Your task to perform on an android device: toggle translation in the chrome app Image 0: 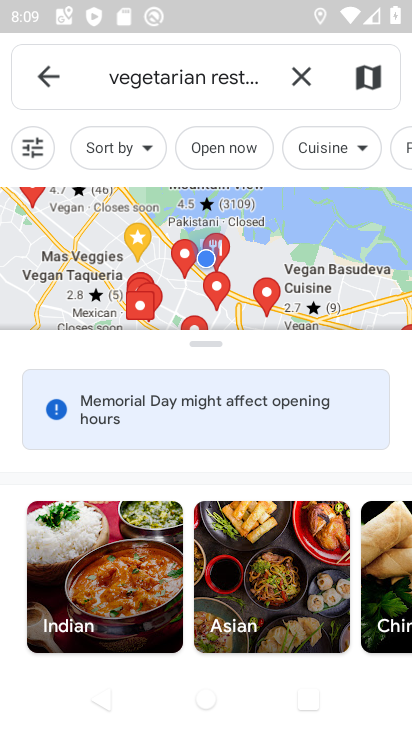
Step 0: press home button
Your task to perform on an android device: toggle translation in the chrome app Image 1: 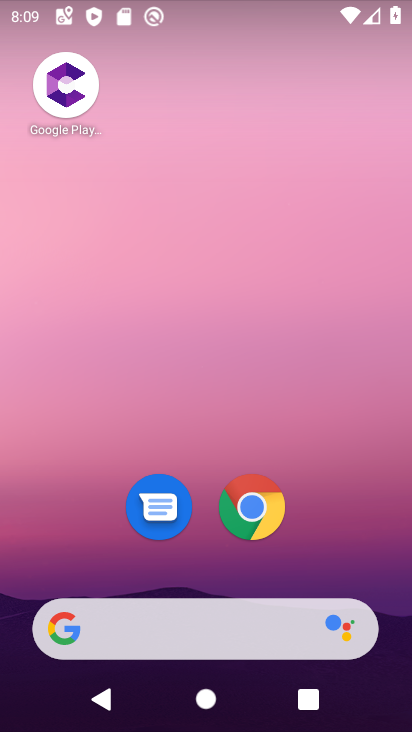
Step 1: click (256, 504)
Your task to perform on an android device: toggle translation in the chrome app Image 2: 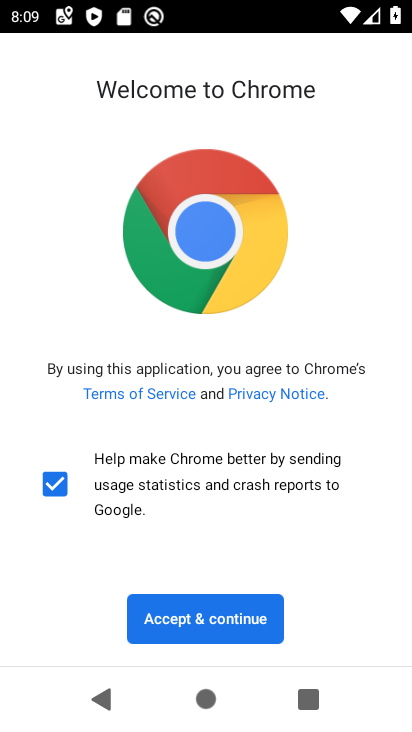
Step 2: click (217, 623)
Your task to perform on an android device: toggle translation in the chrome app Image 3: 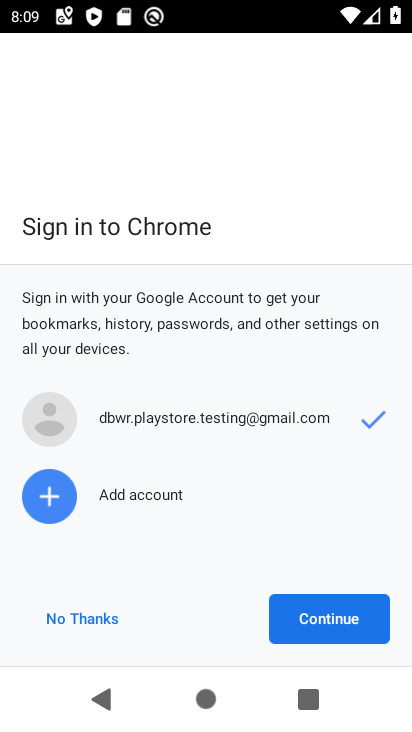
Step 3: click (364, 631)
Your task to perform on an android device: toggle translation in the chrome app Image 4: 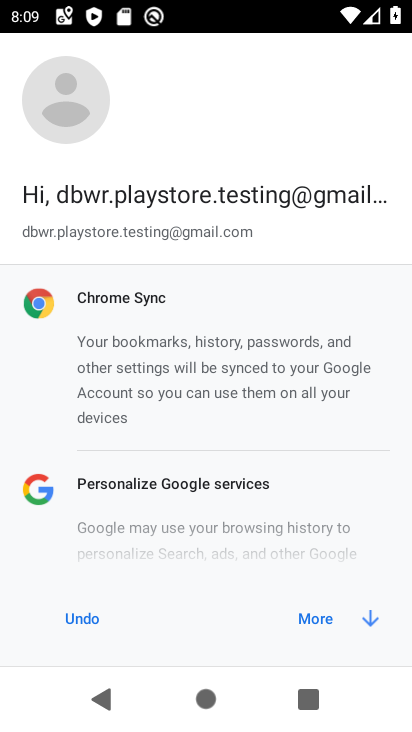
Step 4: click (327, 622)
Your task to perform on an android device: toggle translation in the chrome app Image 5: 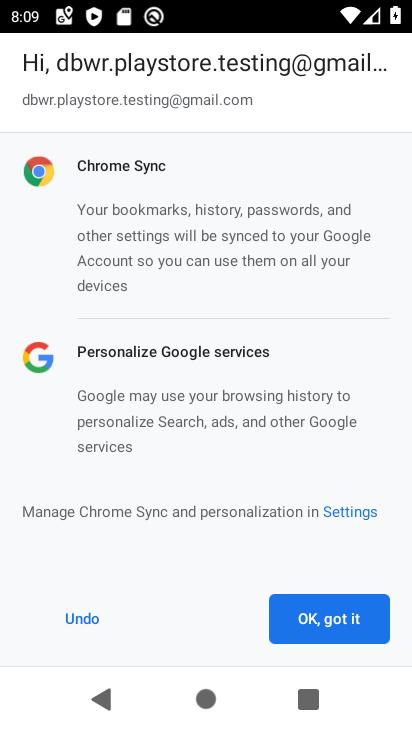
Step 5: click (333, 621)
Your task to perform on an android device: toggle translation in the chrome app Image 6: 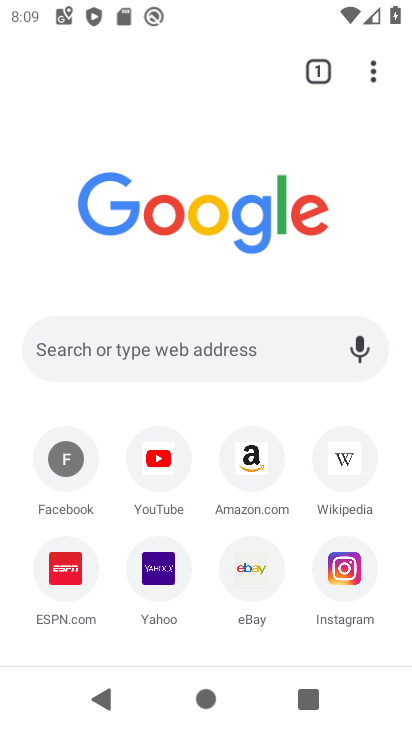
Step 6: click (377, 90)
Your task to perform on an android device: toggle translation in the chrome app Image 7: 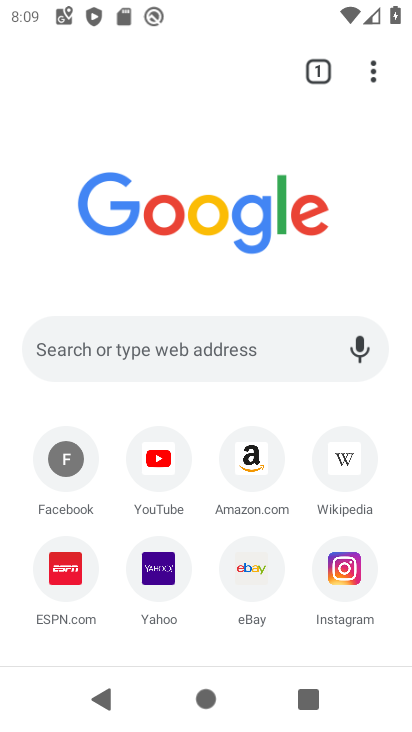
Step 7: click (368, 77)
Your task to perform on an android device: toggle translation in the chrome app Image 8: 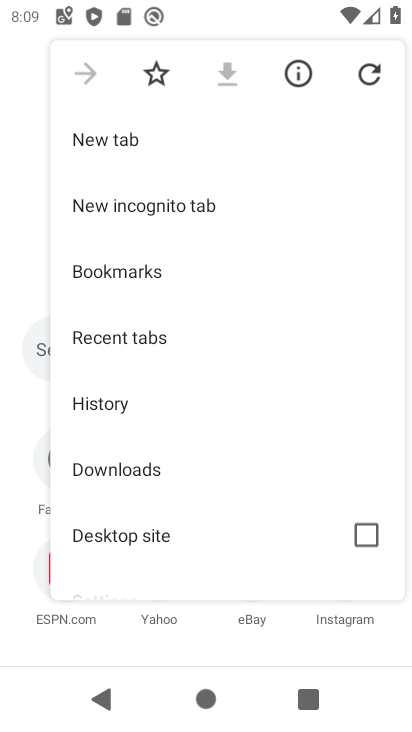
Step 8: drag from (168, 530) to (202, 92)
Your task to perform on an android device: toggle translation in the chrome app Image 9: 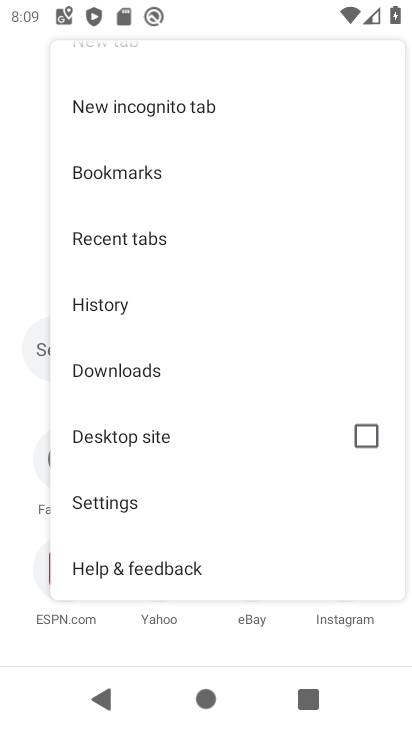
Step 9: click (108, 501)
Your task to perform on an android device: toggle translation in the chrome app Image 10: 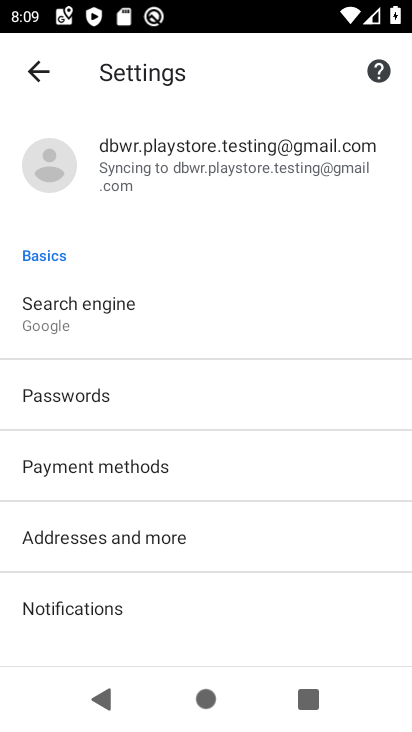
Step 10: drag from (163, 481) to (173, 383)
Your task to perform on an android device: toggle translation in the chrome app Image 11: 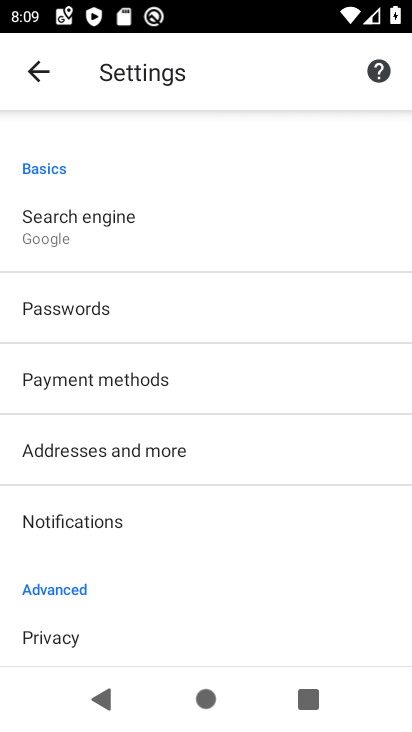
Step 11: drag from (143, 567) to (158, 394)
Your task to perform on an android device: toggle translation in the chrome app Image 12: 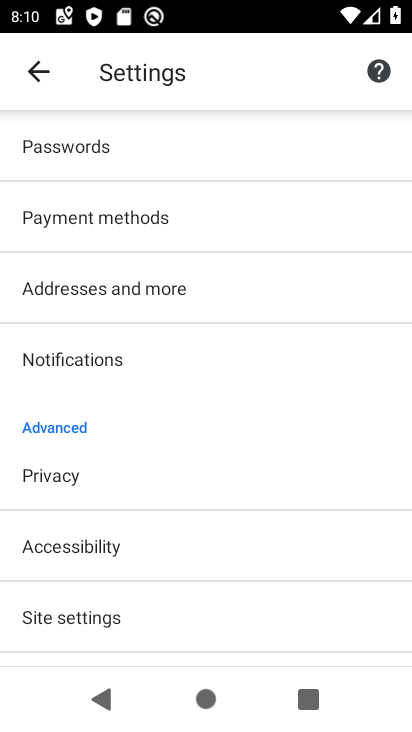
Step 12: drag from (110, 588) to (151, 286)
Your task to perform on an android device: toggle translation in the chrome app Image 13: 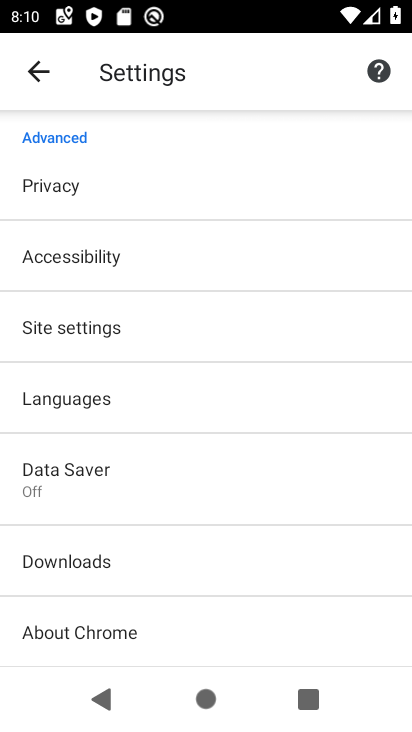
Step 13: click (65, 416)
Your task to perform on an android device: toggle translation in the chrome app Image 14: 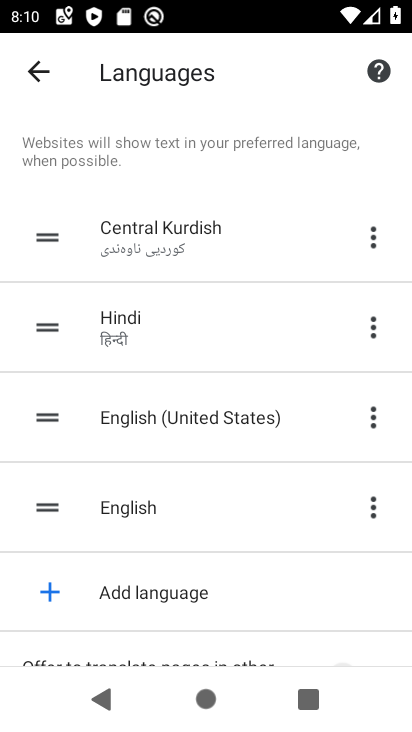
Step 14: drag from (188, 604) to (274, 121)
Your task to perform on an android device: toggle translation in the chrome app Image 15: 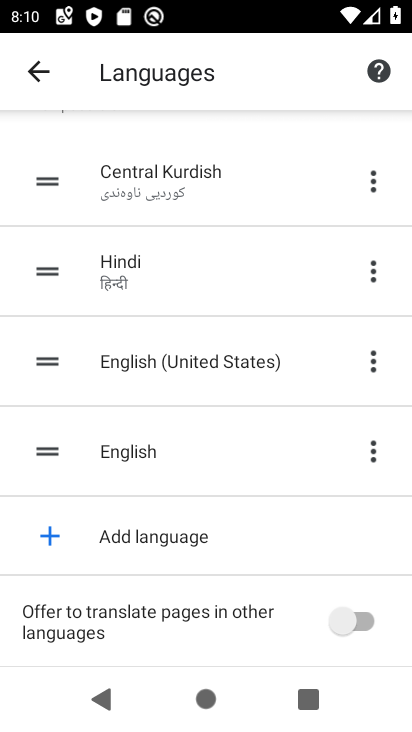
Step 15: click (377, 626)
Your task to perform on an android device: toggle translation in the chrome app Image 16: 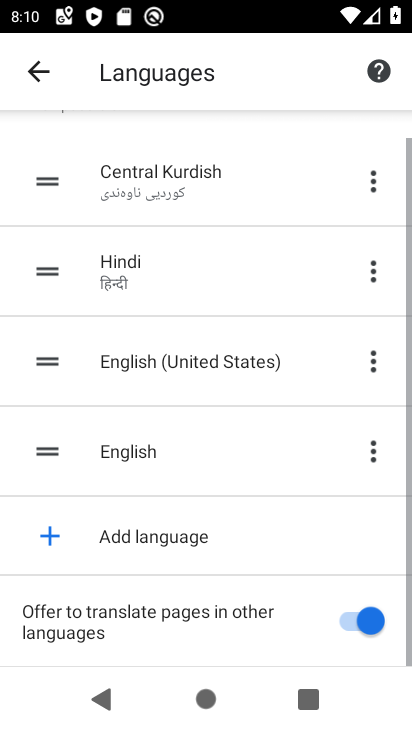
Step 16: task complete